Your task to perform on an android device: check data usage Image 0: 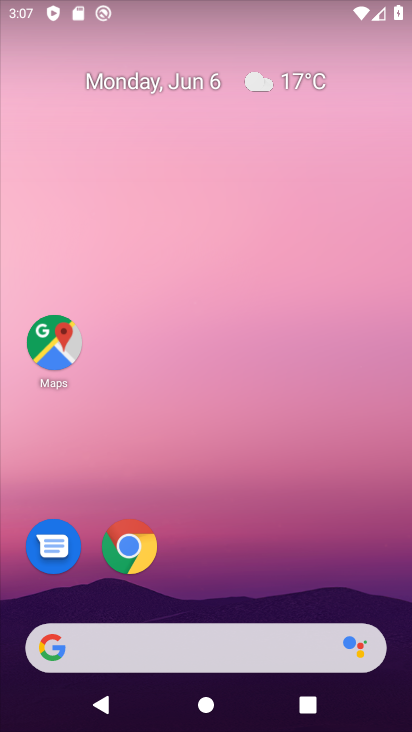
Step 0: drag from (363, 356) to (382, 2)
Your task to perform on an android device: check data usage Image 1: 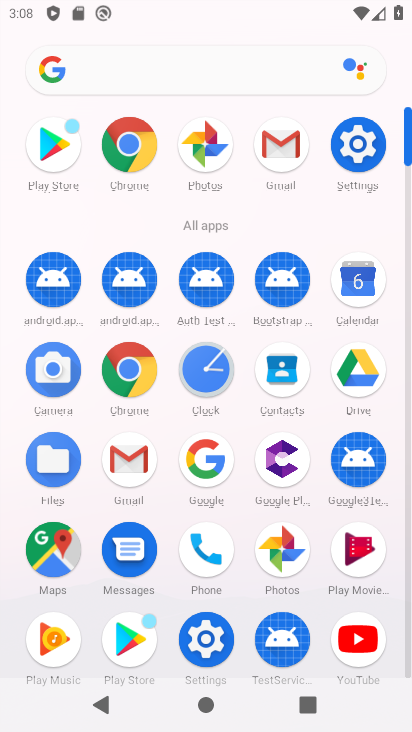
Step 1: click (351, 126)
Your task to perform on an android device: check data usage Image 2: 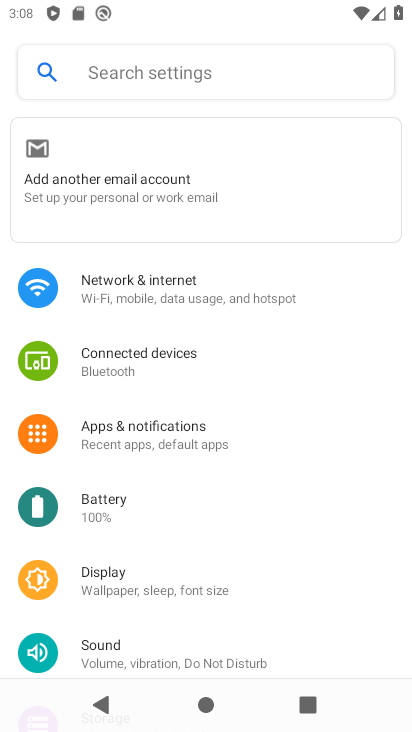
Step 2: drag from (266, 277) to (269, 692)
Your task to perform on an android device: check data usage Image 3: 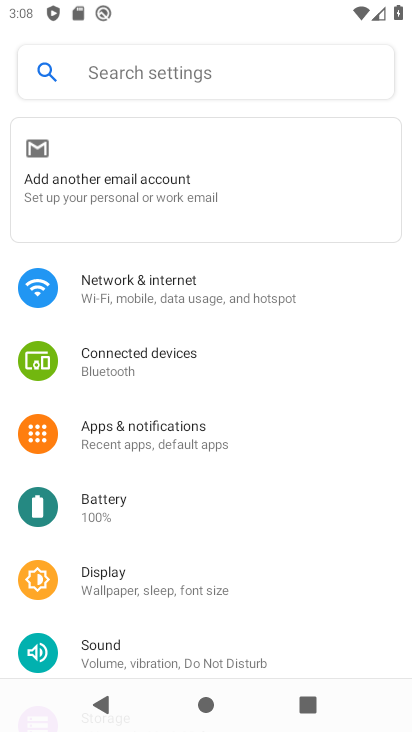
Step 3: click (175, 301)
Your task to perform on an android device: check data usage Image 4: 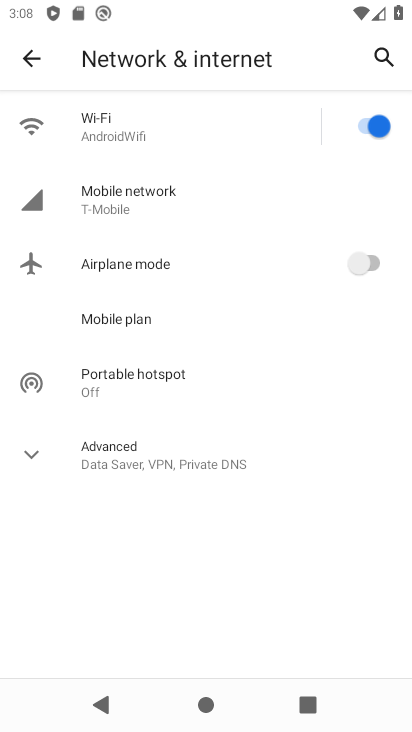
Step 4: click (134, 192)
Your task to perform on an android device: check data usage Image 5: 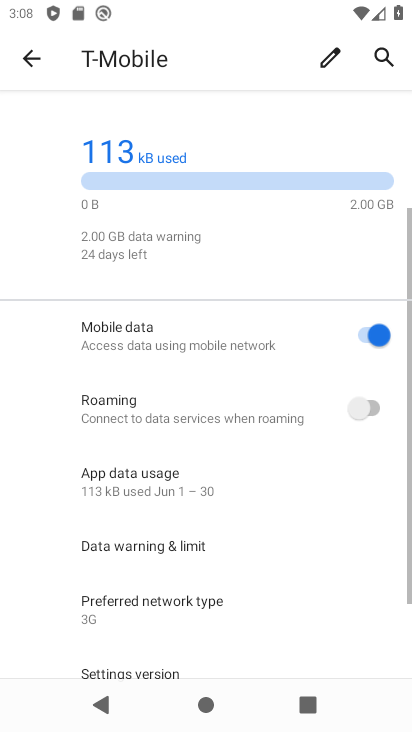
Step 5: task complete